Your task to perform on an android device: open app "Life360: Find Family & Friends" (install if not already installed) Image 0: 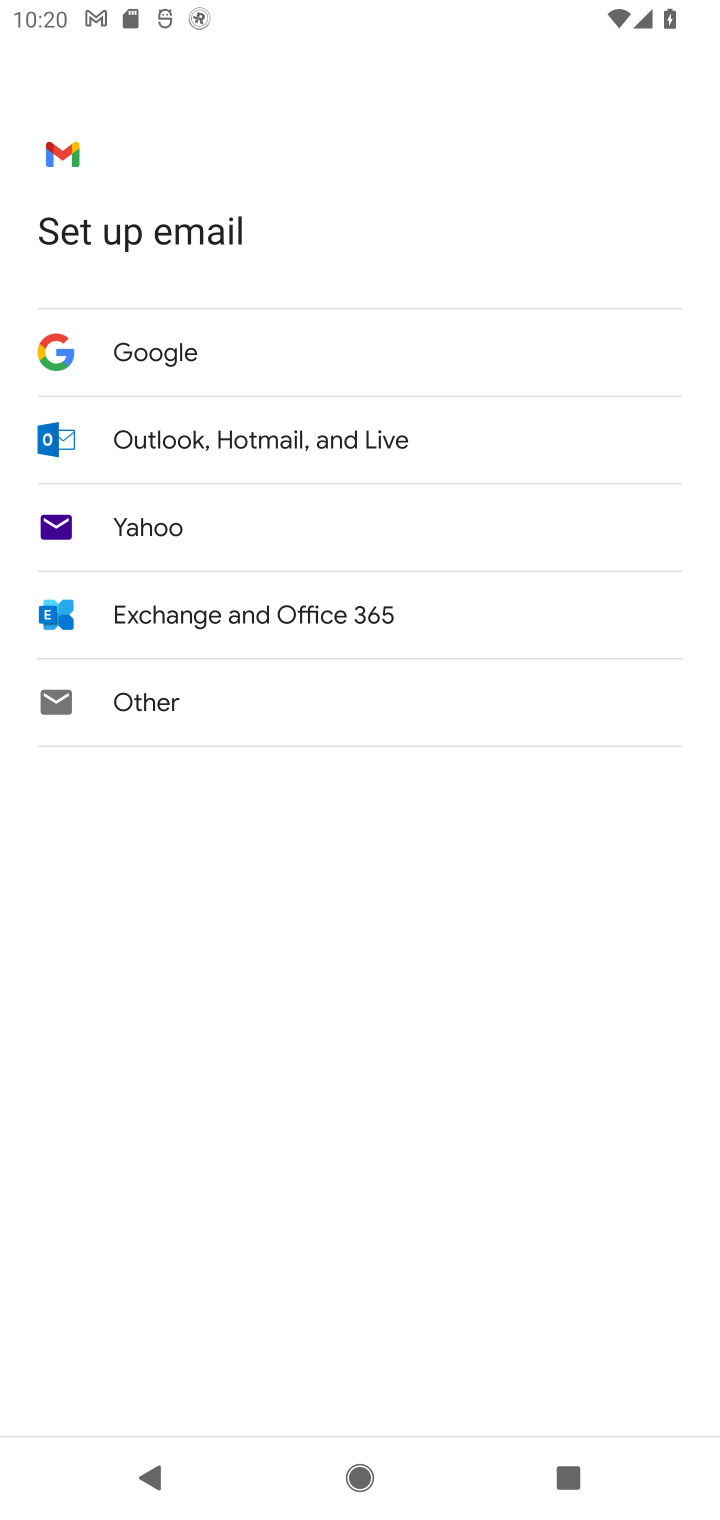
Step 0: press home button
Your task to perform on an android device: open app "Life360: Find Family & Friends" (install if not already installed) Image 1: 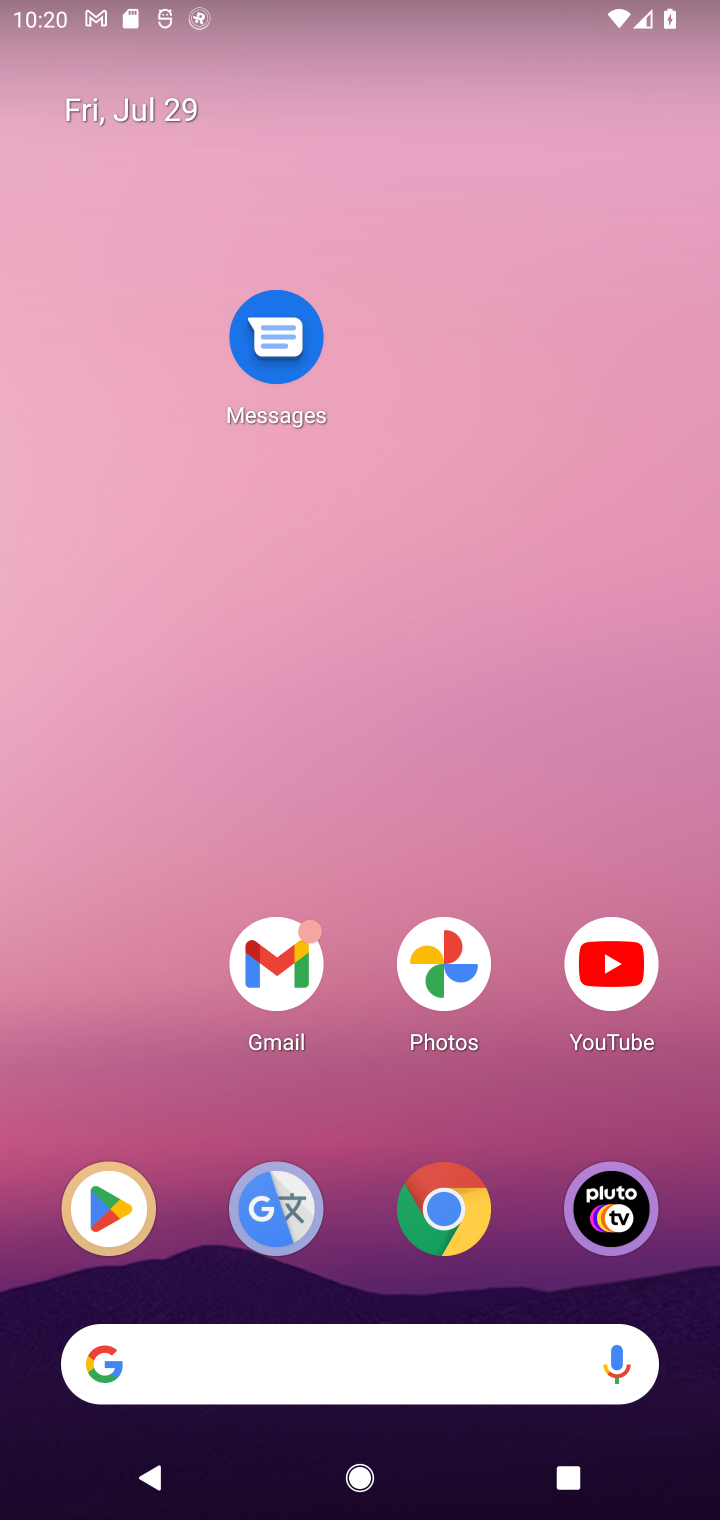
Step 1: drag from (213, 1368) to (271, 116)
Your task to perform on an android device: open app "Life360: Find Family & Friends" (install if not already installed) Image 2: 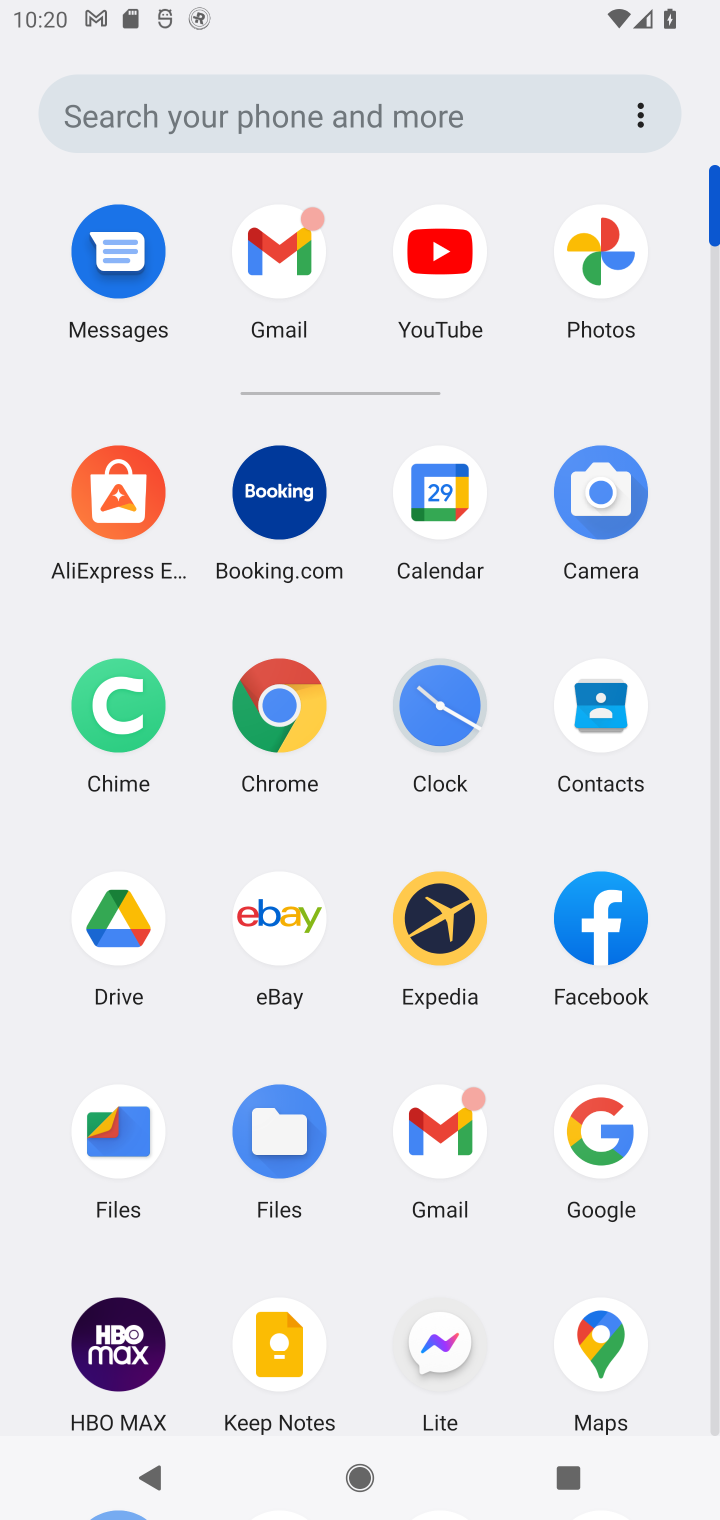
Step 2: drag from (330, 1292) to (373, 192)
Your task to perform on an android device: open app "Life360: Find Family & Friends" (install if not already installed) Image 3: 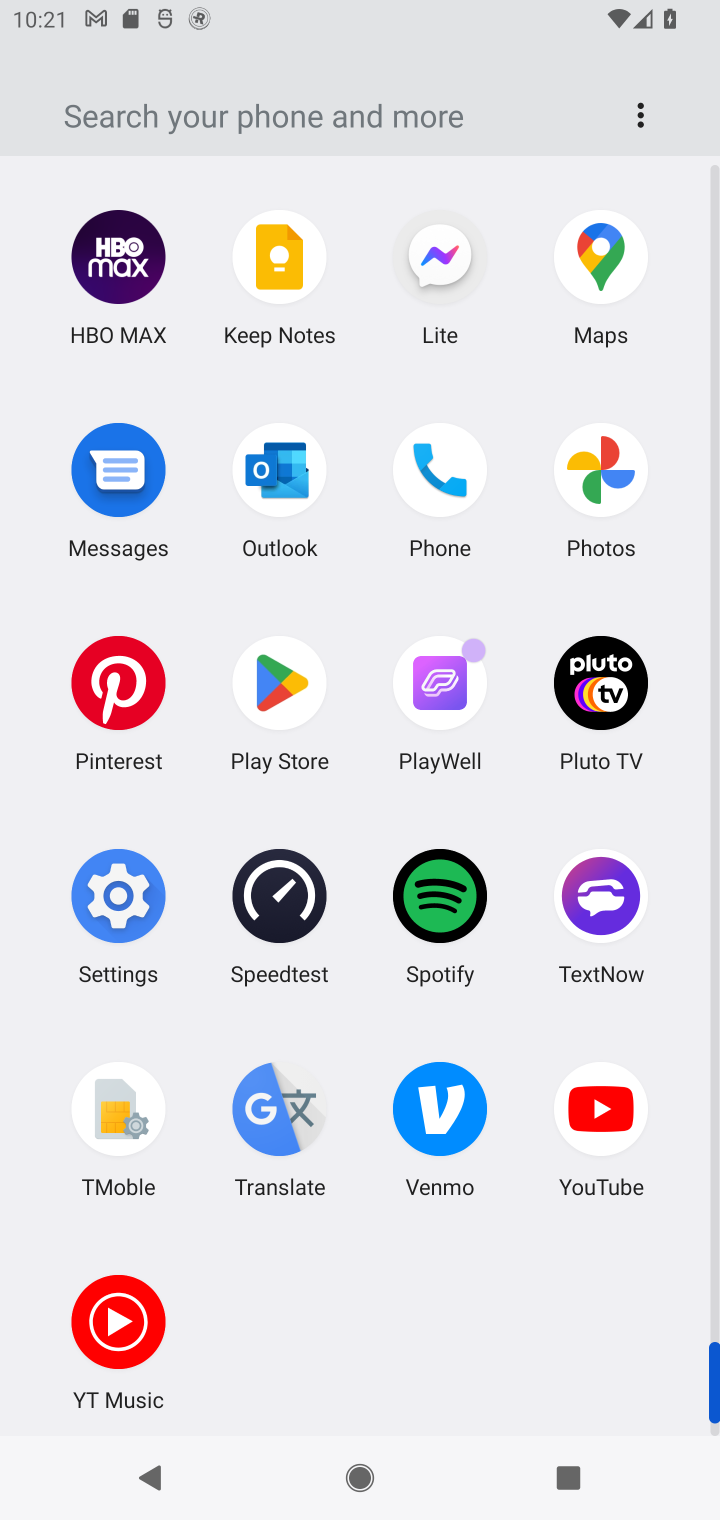
Step 3: click (285, 694)
Your task to perform on an android device: open app "Life360: Find Family & Friends" (install if not already installed) Image 4: 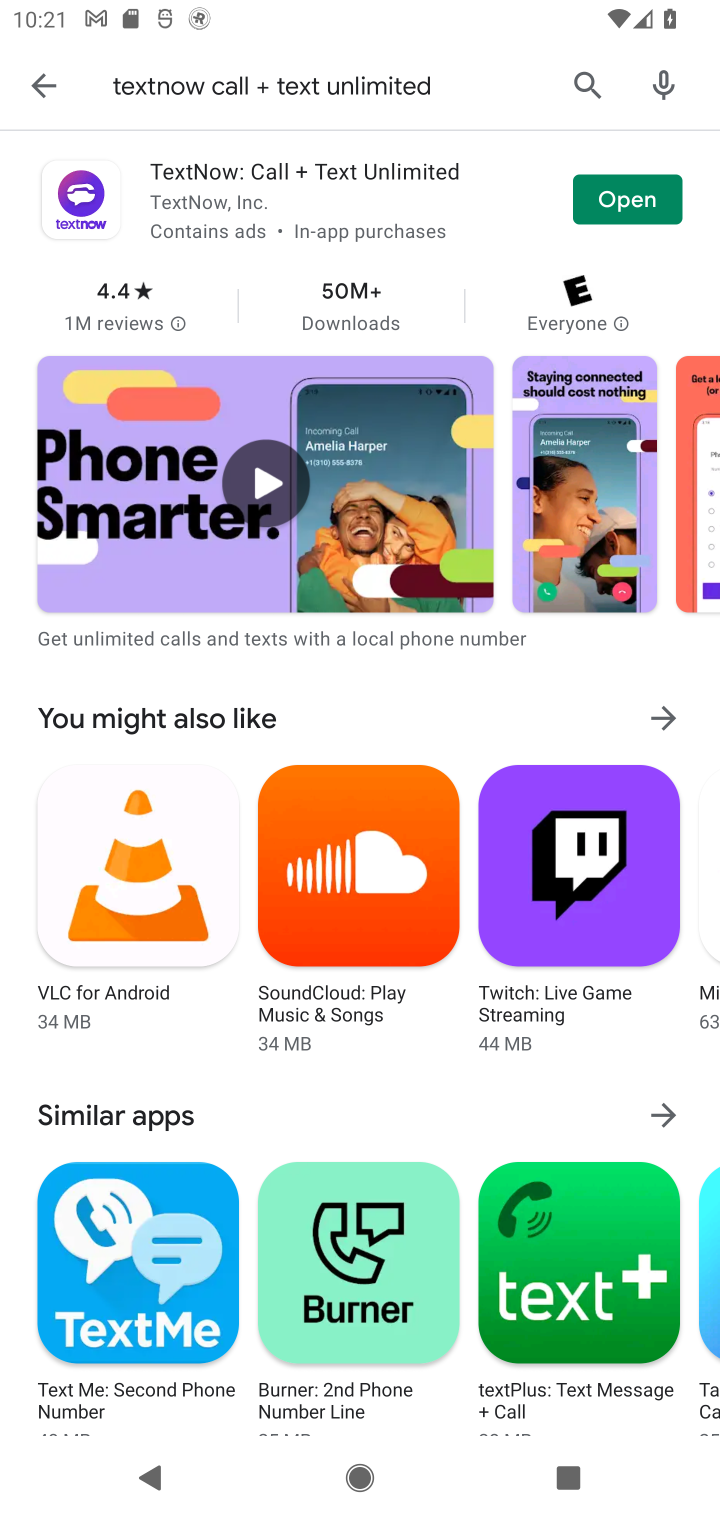
Step 4: click (526, 72)
Your task to perform on an android device: open app "Life360: Find Family & Friends" (install if not already installed) Image 5: 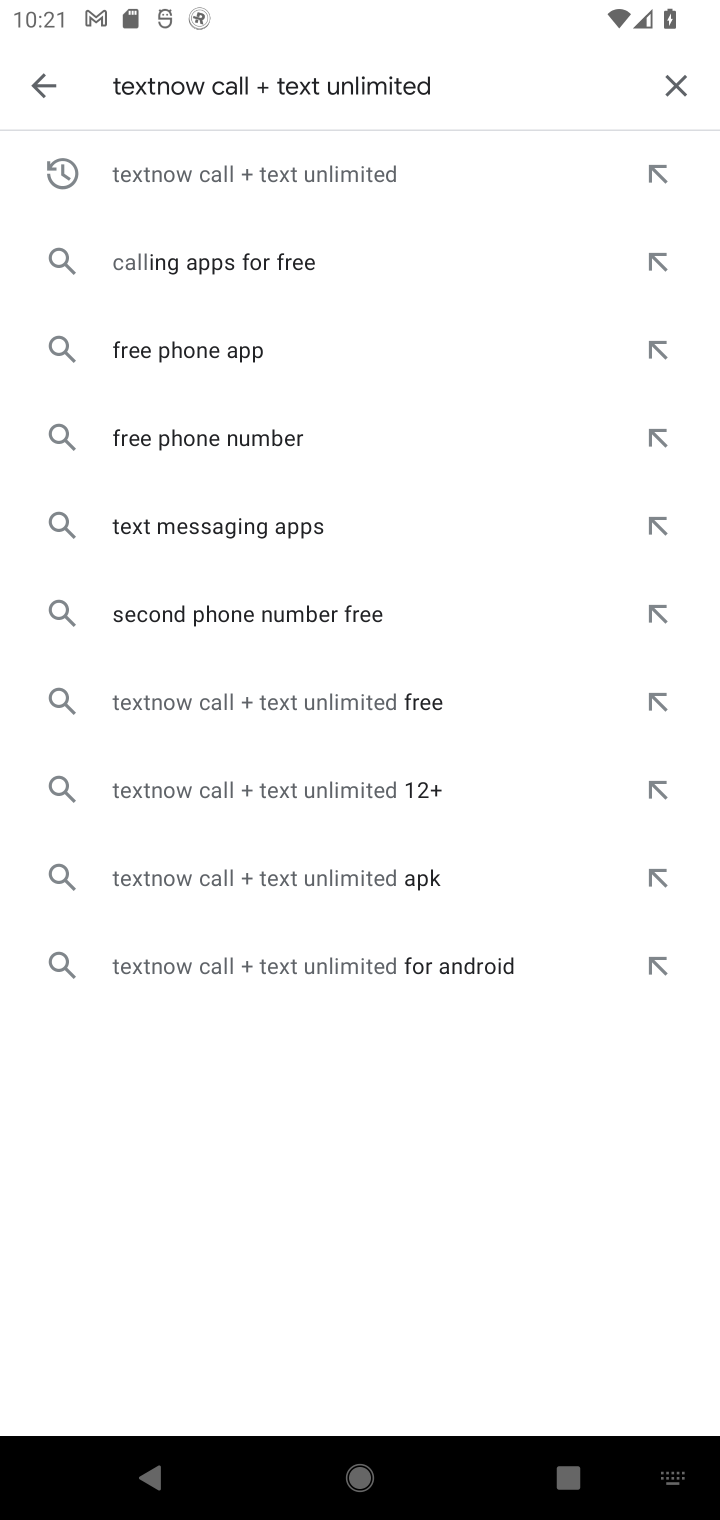
Step 5: click (692, 71)
Your task to perform on an android device: open app "Life360: Find Family & Friends" (install if not already installed) Image 6: 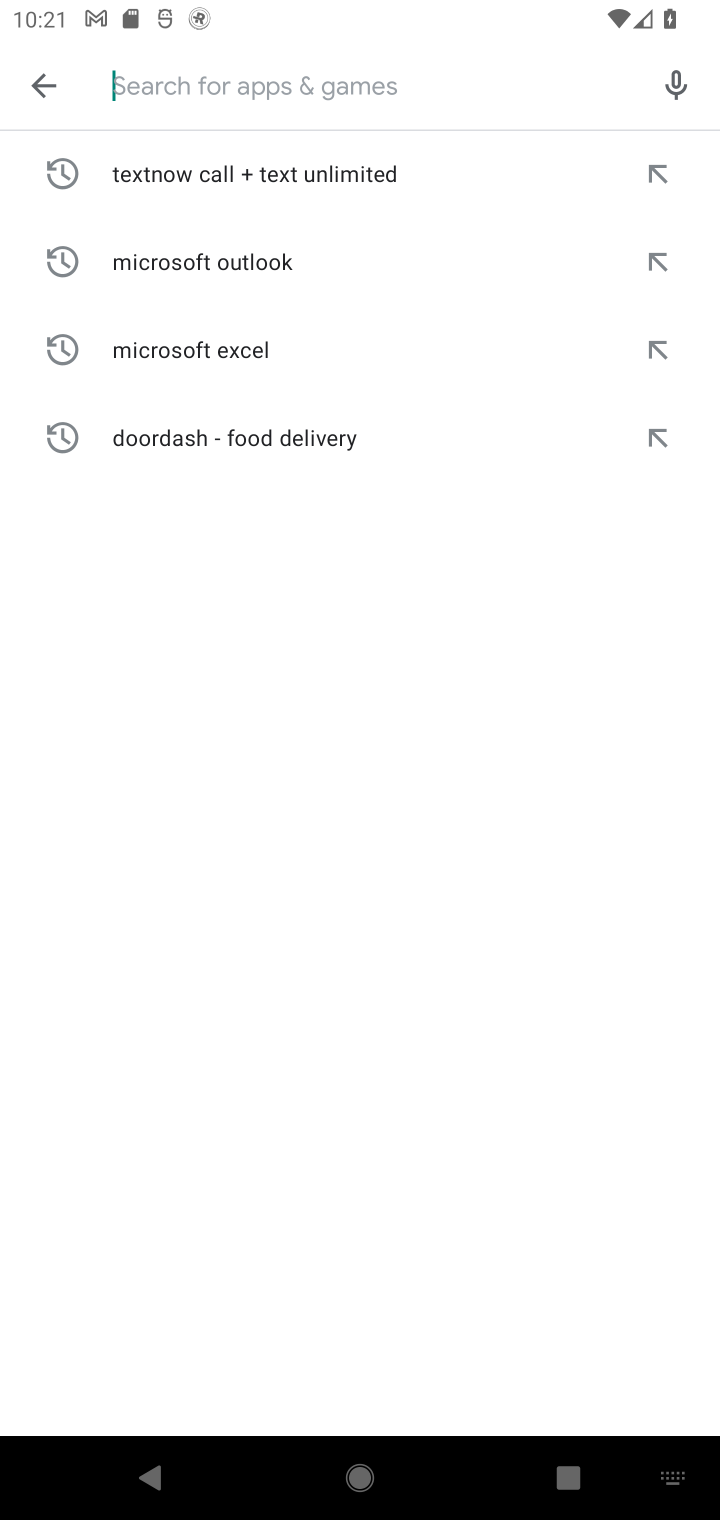
Step 6: click (239, 77)
Your task to perform on an android device: open app "Life360: Find Family & Friends" (install if not already installed) Image 7: 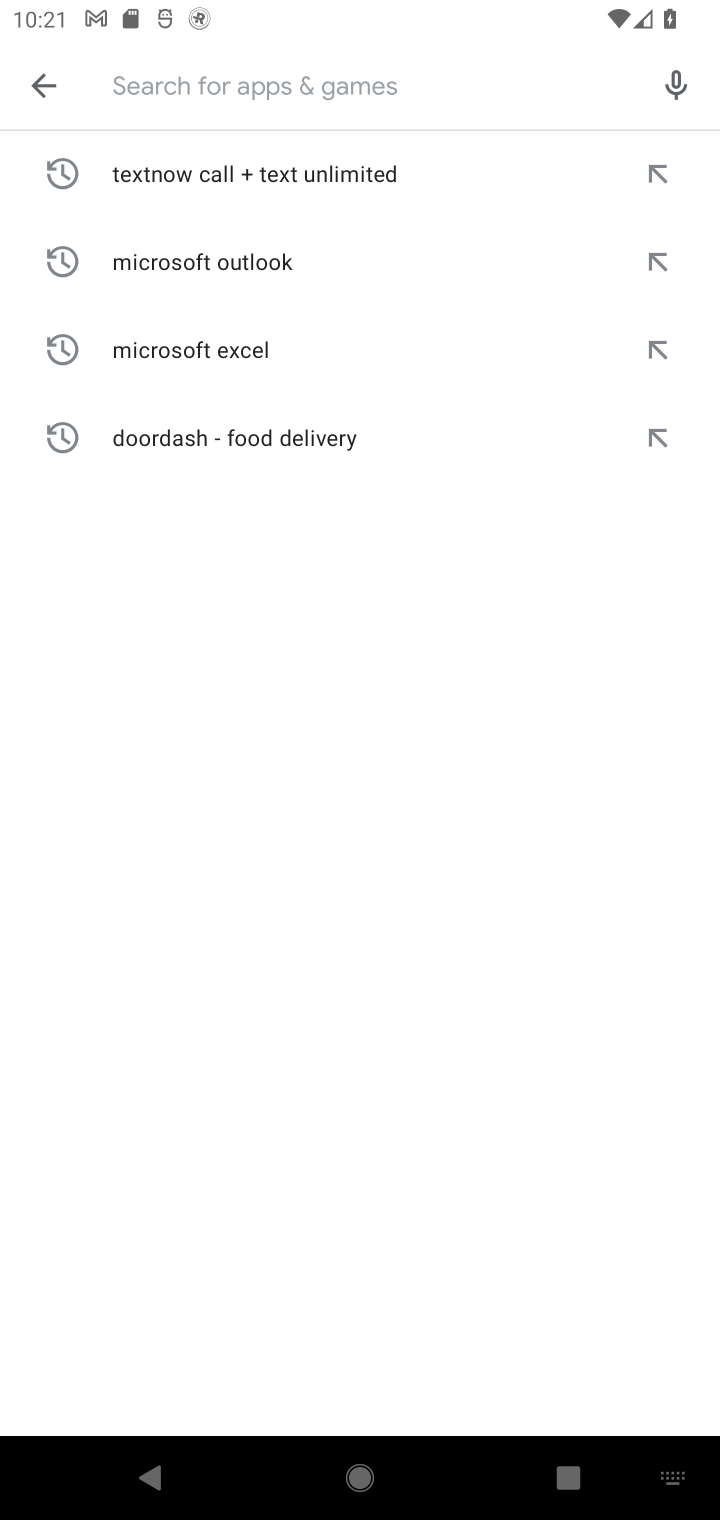
Step 7: type "Life360: Find Family & Friends"
Your task to perform on an android device: open app "Life360: Find Family & Friends" (install if not already installed) Image 8: 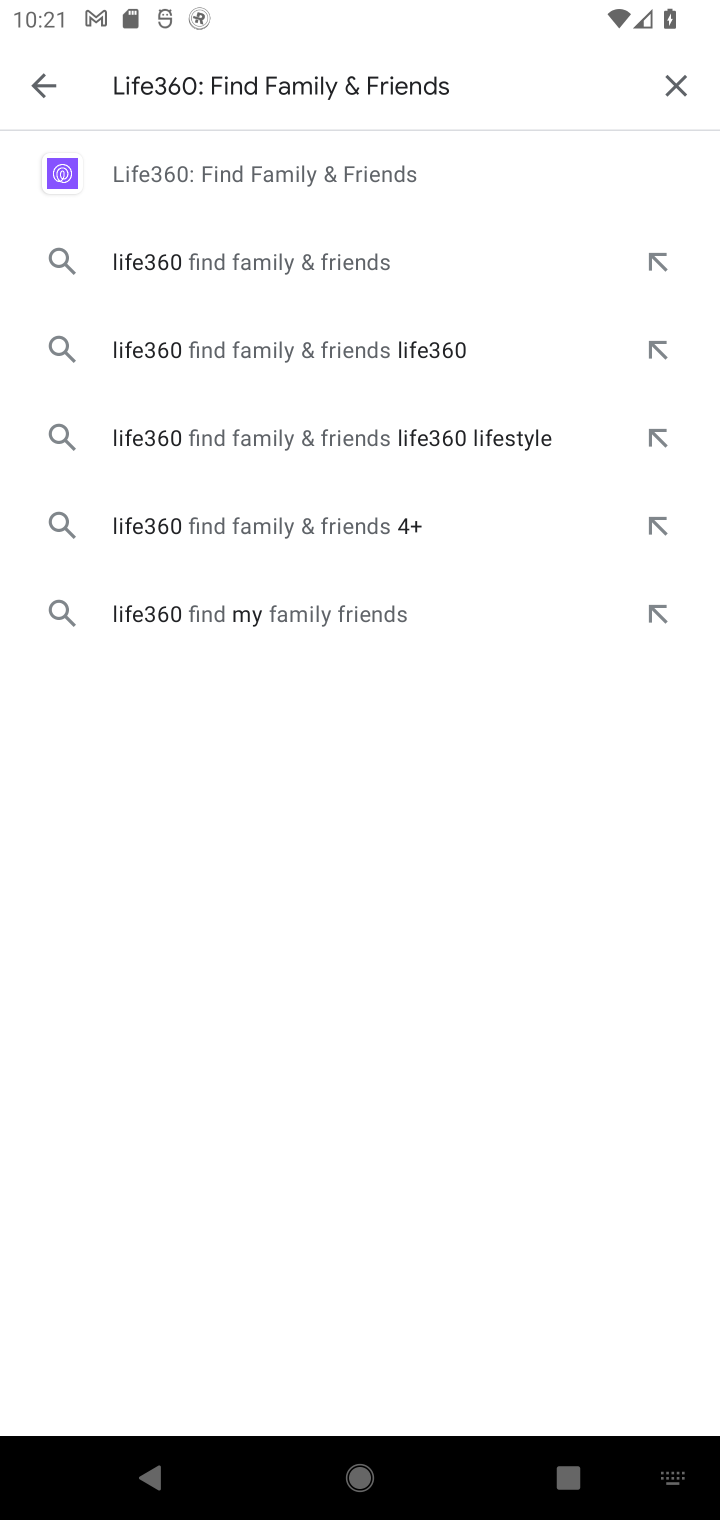
Step 8: click (334, 175)
Your task to perform on an android device: open app "Life360: Find Family & Friends" (install if not already installed) Image 9: 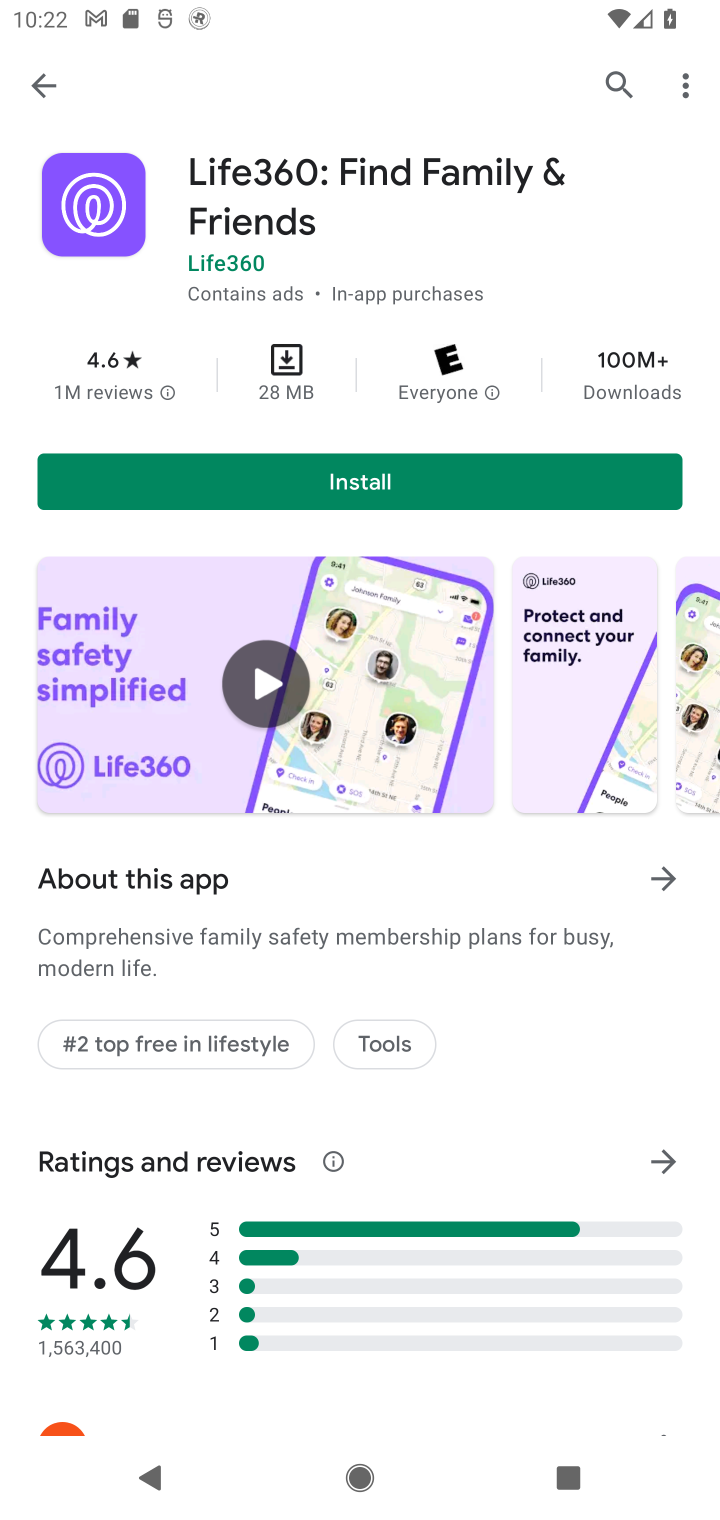
Step 9: click (389, 471)
Your task to perform on an android device: open app "Life360: Find Family & Friends" (install if not already installed) Image 10: 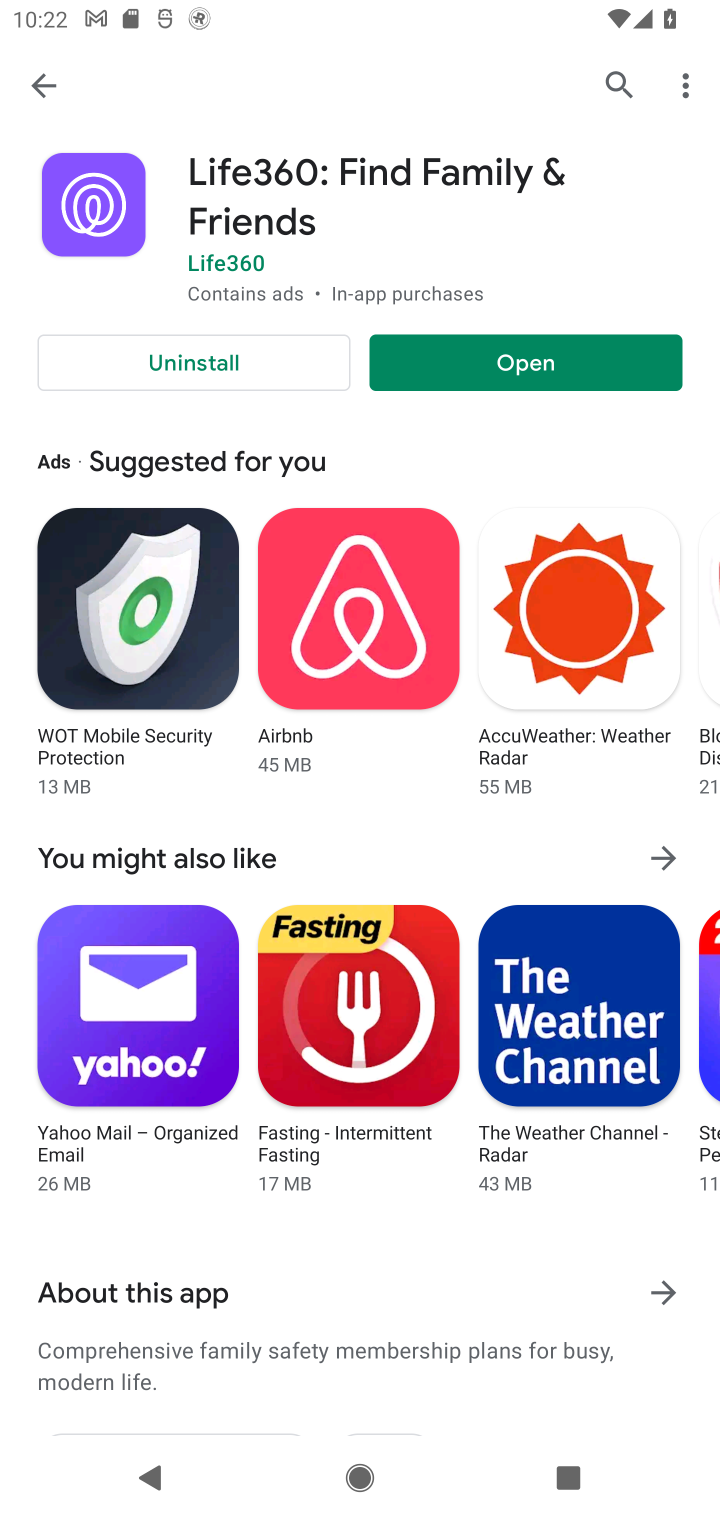
Step 10: click (531, 382)
Your task to perform on an android device: open app "Life360: Find Family & Friends" (install if not already installed) Image 11: 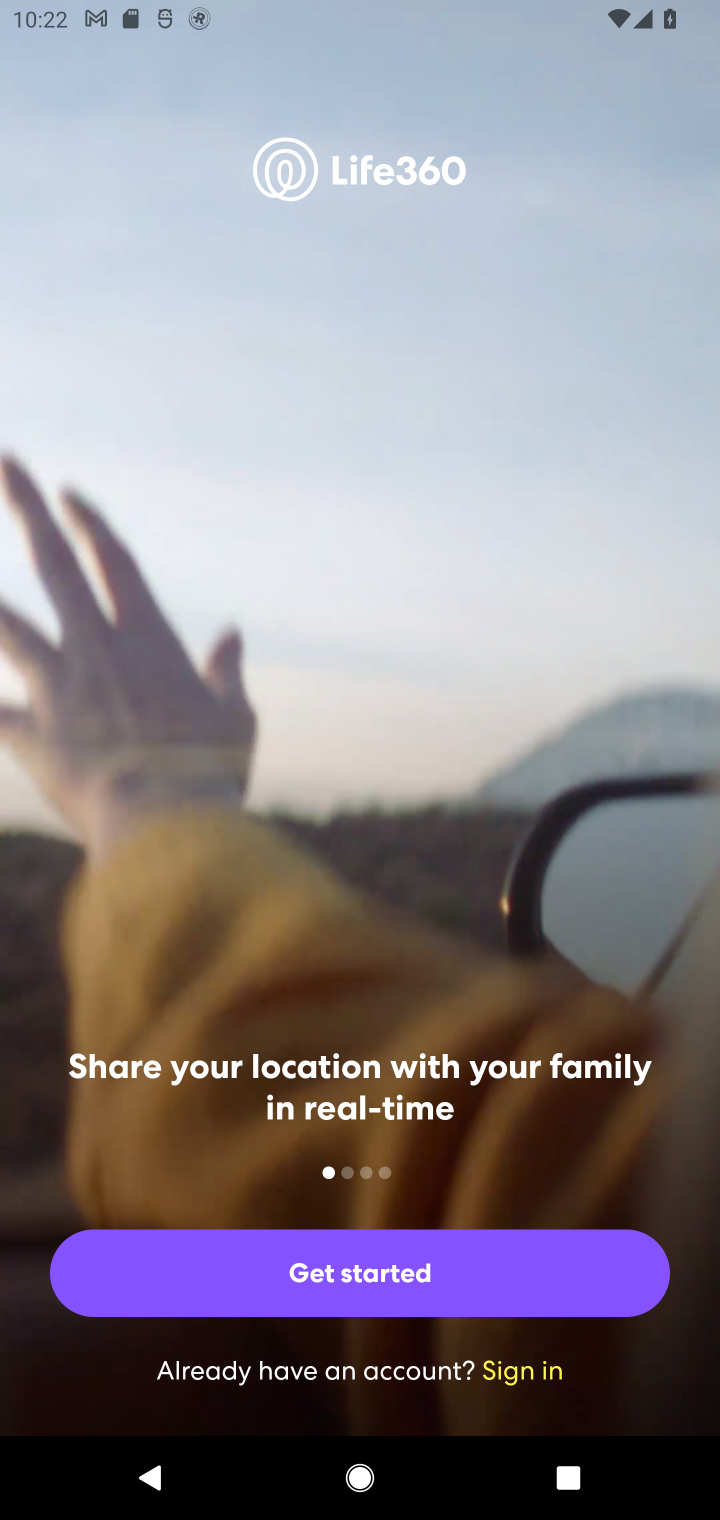
Step 11: task complete